Your task to perform on an android device: open chrome and create a bookmark for the current page Image 0: 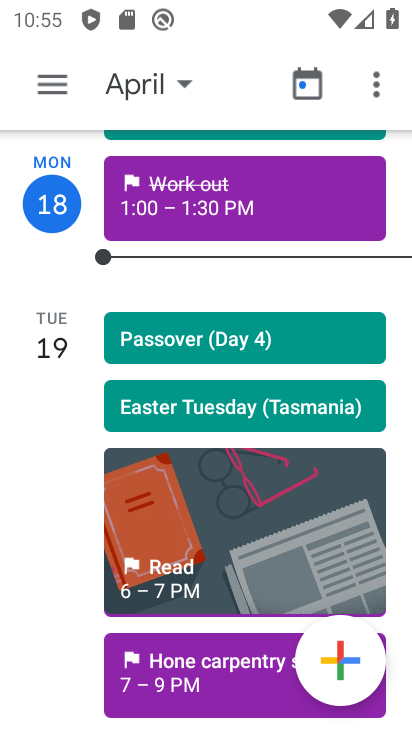
Step 0: press home button
Your task to perform on an android device: open chrome and create a bookmark for the current page Image 1: 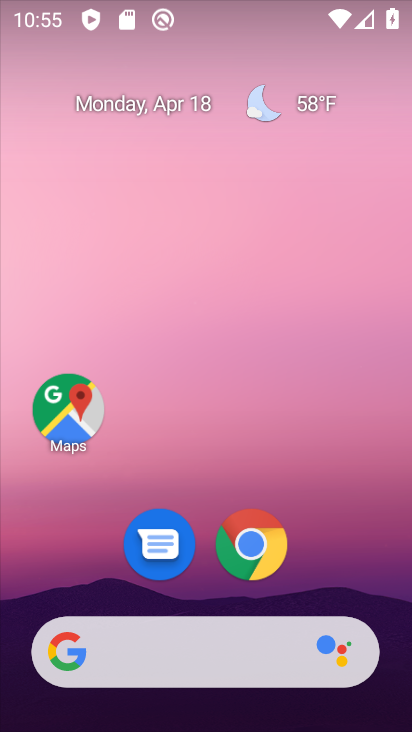
Step 1: click (254, 541)
Your task to perform on an android device: open chrome and create a bookmark for the current page Image 2: 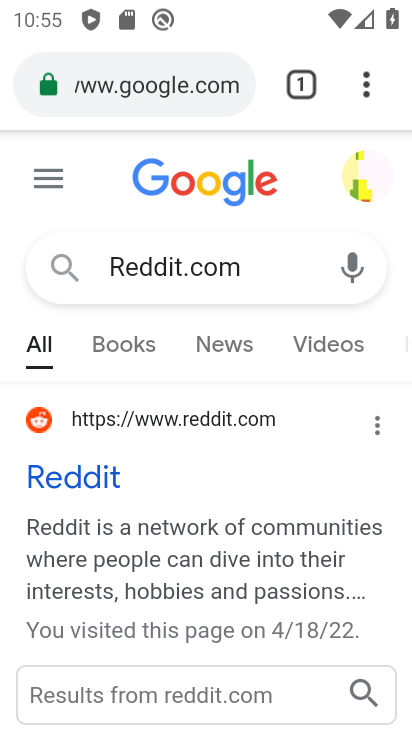
Step 2: click (375, 86)
Your task to perform on an android device: open chrome and create a bookmark for the current page Image 3: 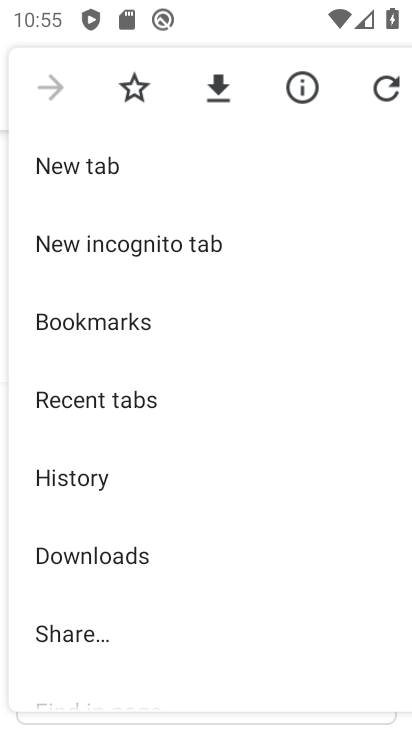
Step 3: click (130, 93)
Your task to perform on an android device: open chrome and create a bookmark for the current page Image 4: 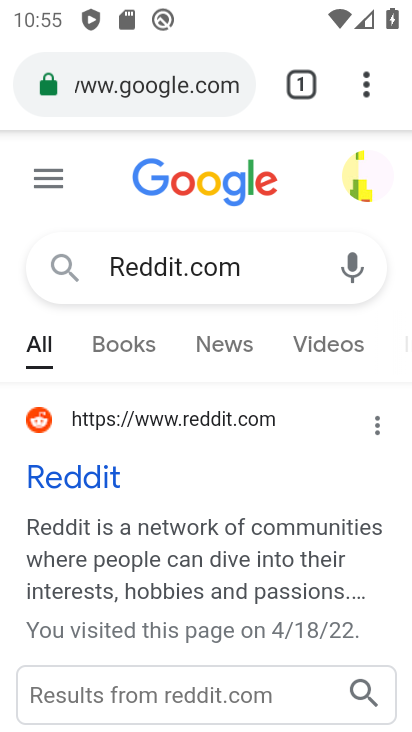
Step 4: task complete